Your task to perform on an android device: Search for Italian restaurants on Maps Image 0: 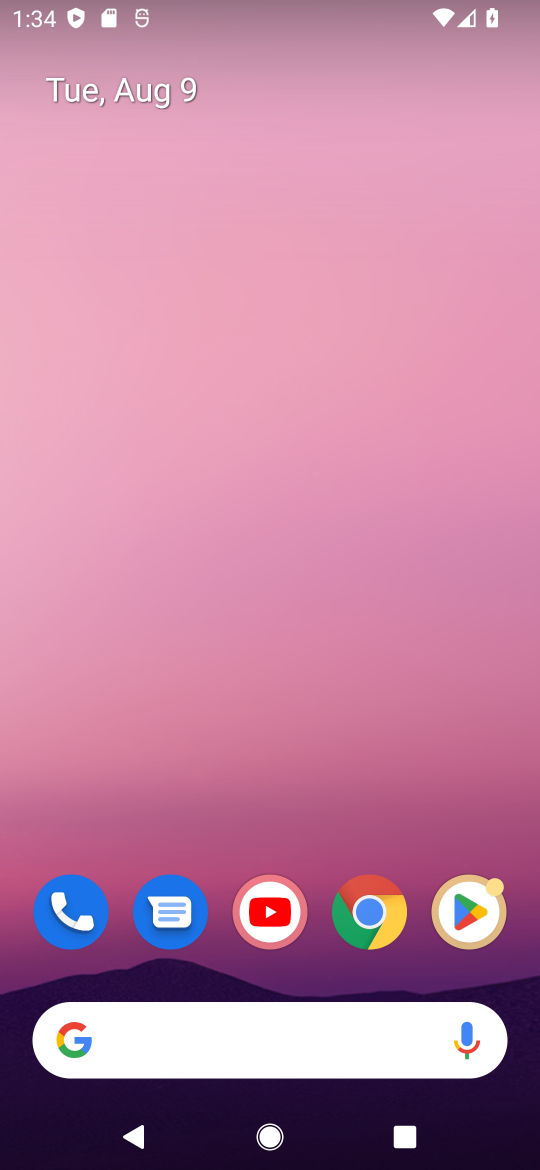
Step 0: drag from (299, 843) to (270, 177)
Your task to perform on an android device: Search for Italian restaurants on Maps Image 1: 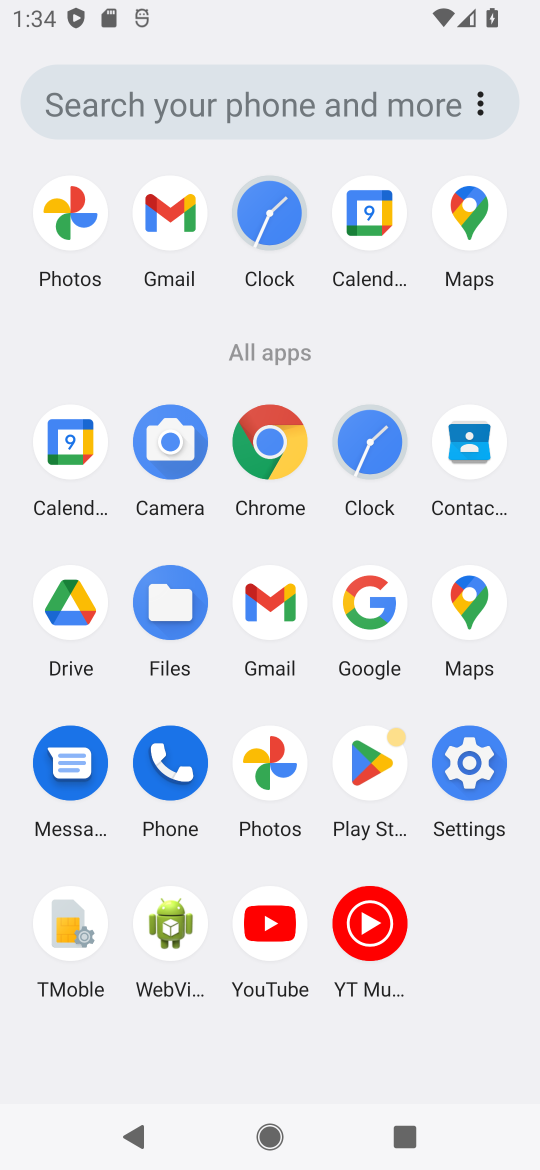
Step 1: click (475, 209)
Your task to perform on an android device: Search for Italian restaurants on Maps Image 2: 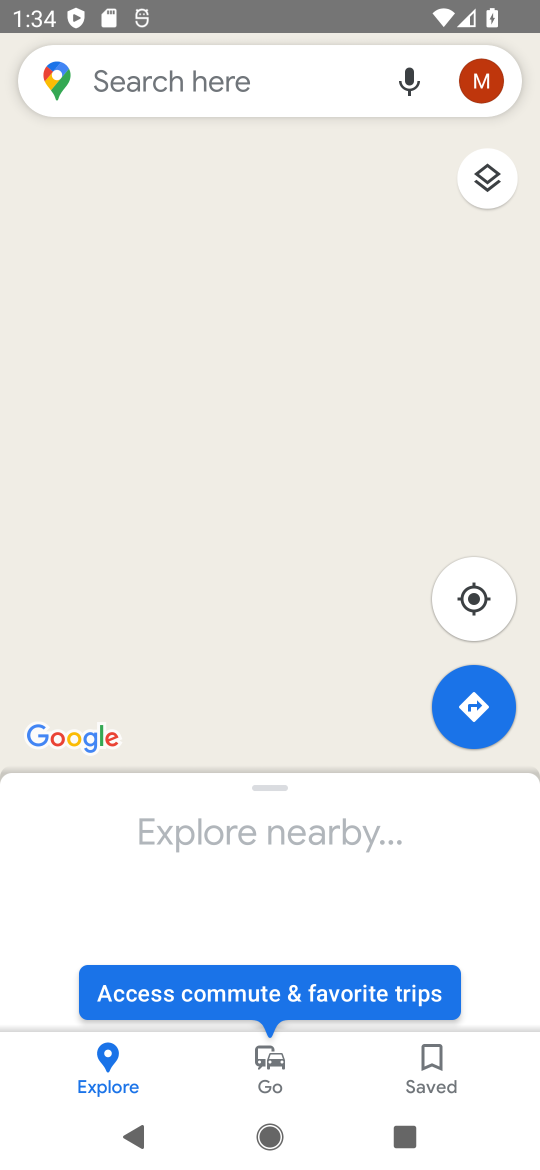
Step 2: click (133, 86)
Your task to perform on an android device: Search for Italian restaurants on Maps Image 3: 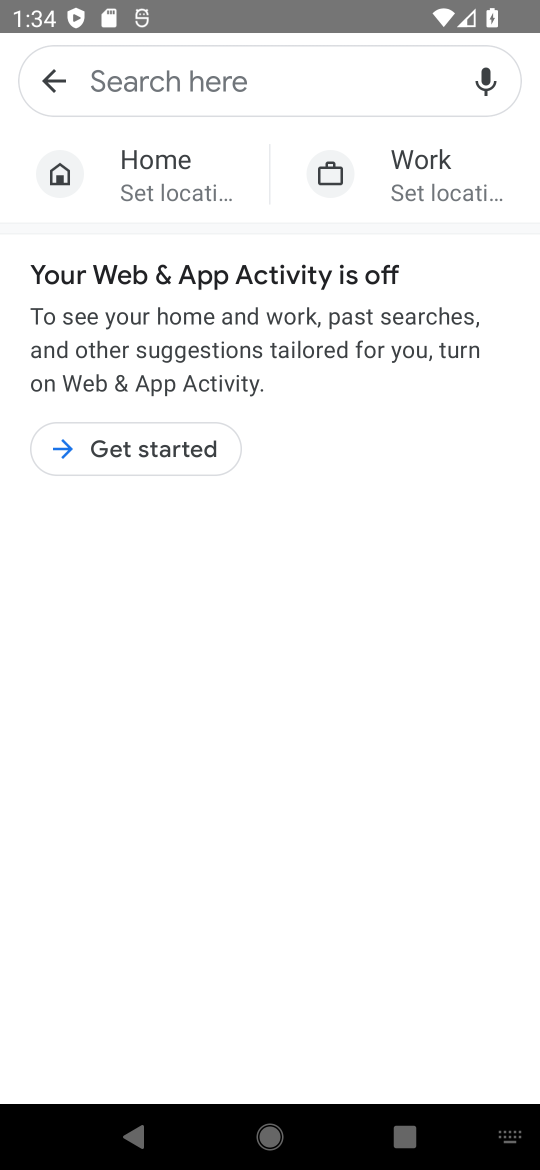
Step 3: type "italian restaurants"
Your task to perform on an android device: Search for Italian restaurants on Maps Image 4: 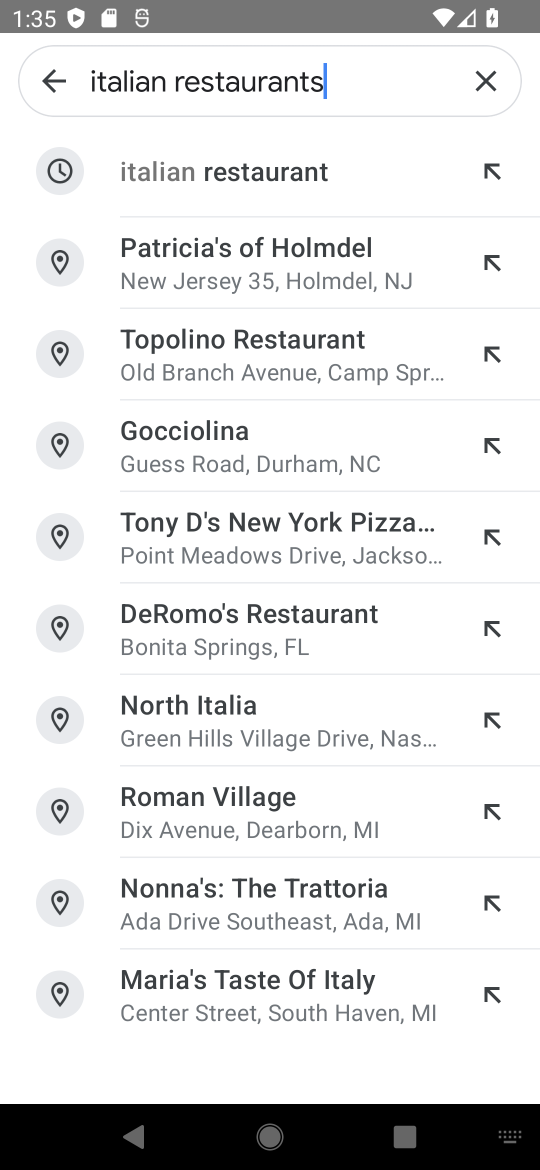
Step 4: click (262, 165)
Your task to perform on an android device: Search for Italian restaurants on Maps Image 5: 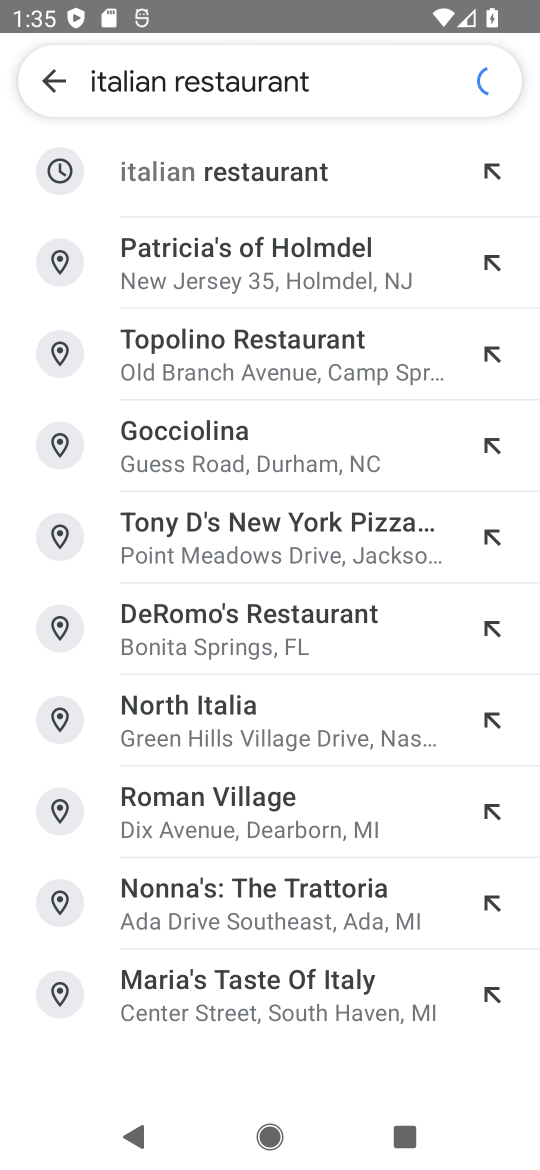
Step 5: click (273, 166)
Your task to perform on an android device: Search for Italian restaurants on Maps Image 6: 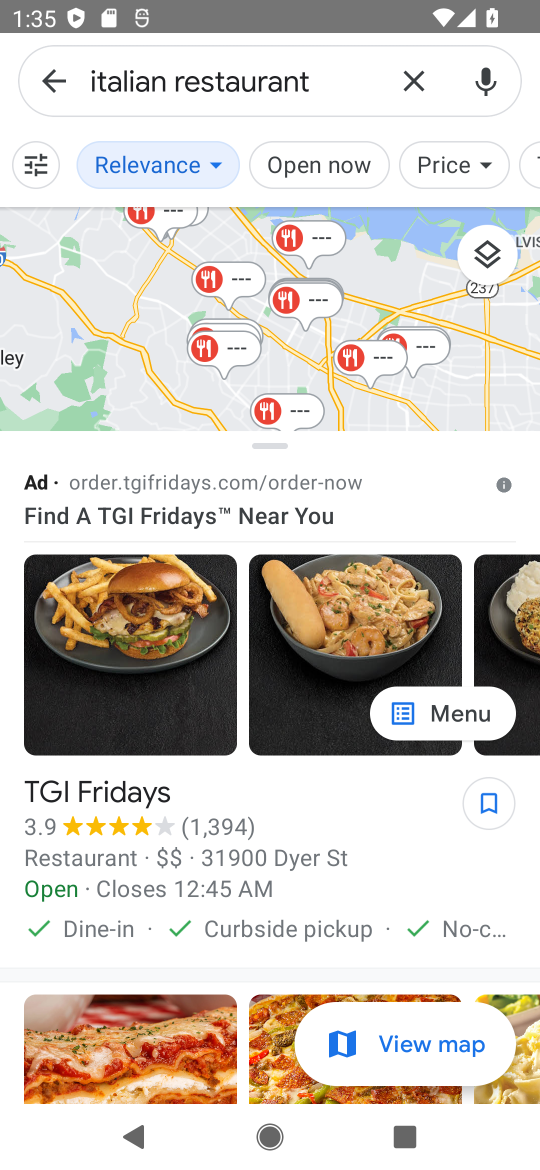
Step 6: task complete